Your task to perform on an android device: Go to Amazon Image 0: 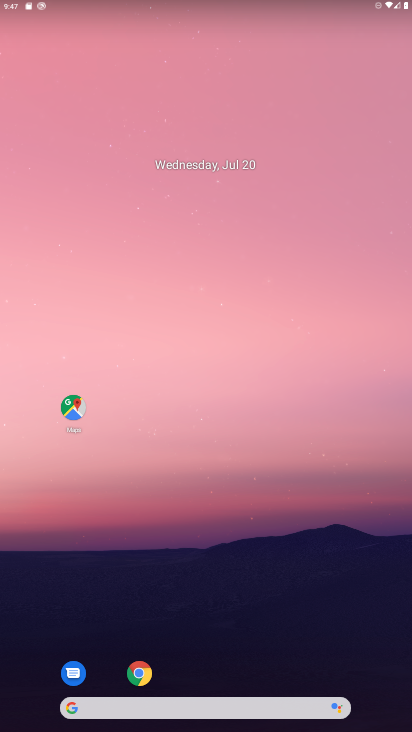
Step 0: drag from (196, 643) to (349, 0)
Your task to perform on an android device: Go to Amazon Image 1: 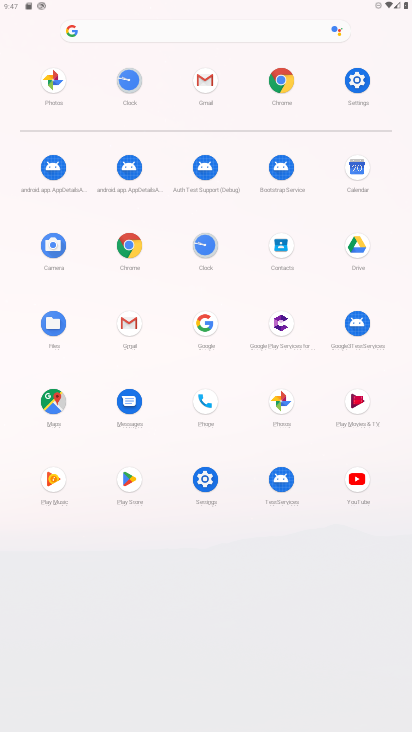
Step 1: click (125, 236)
Your task to perform on an android device: Go to Amazon Image 2: 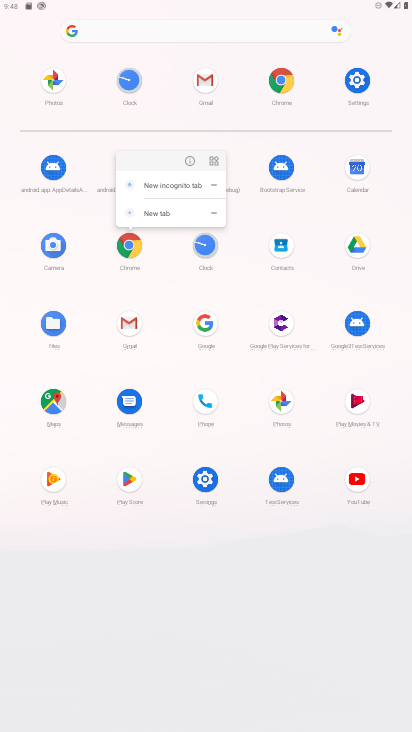
Step 2: click (186, 159)
Your task to perform on an android device: Go to Amazon Image 3: 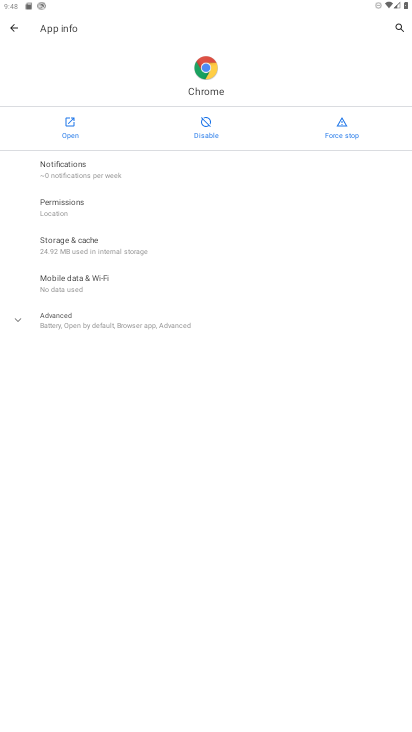
Step 3: click (64, 138)
Your task to perform on an android device: Go to Amazon Image 4: 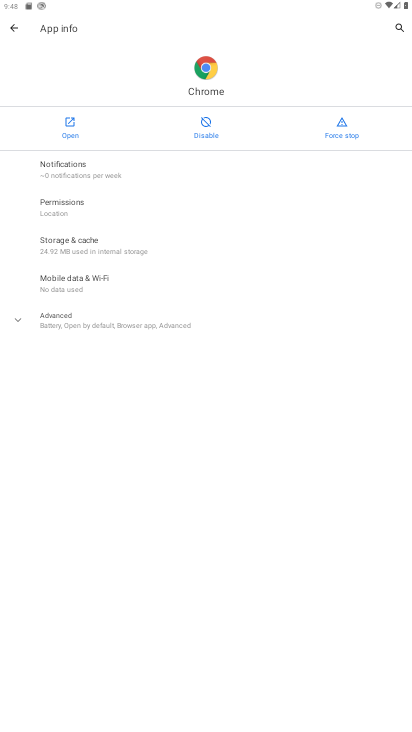
Step 4: click (64, 138)
Your task to perform on an android device: Go to Amazon Image 5: 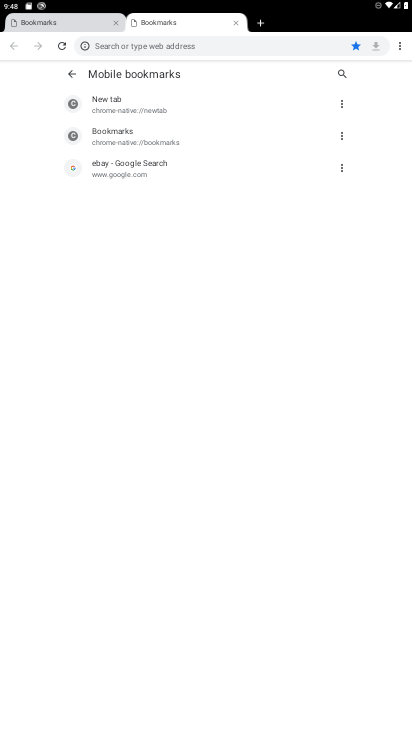
Step 5: drag from (219, 514) to (290, 214)
Your task to perform on an android device: Go to Amazon Image 6: 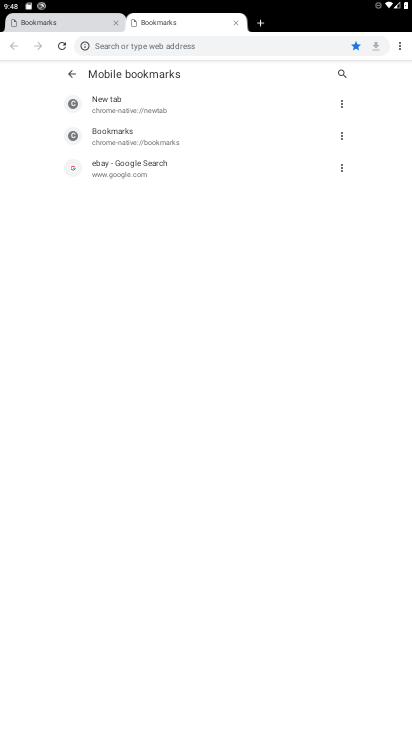
Step 6: click (261, 26)
Your task to perform on an android device: Go to Amazon Image 7: 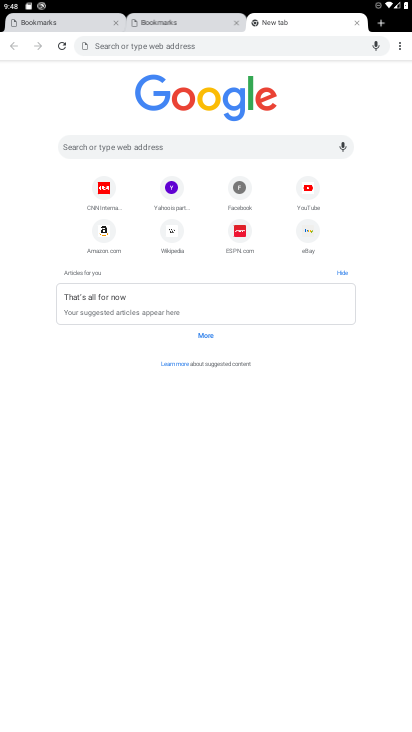
Step 7: click (100, 231)
Your task to perform on an android device: Go to Amazon Image 8: 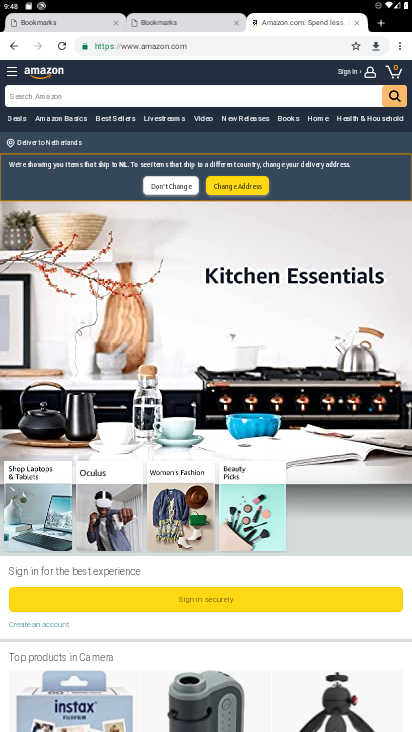
Step 8: task complete